Your task to perform on an android device: toggle pop-ups in chrome Image 0: 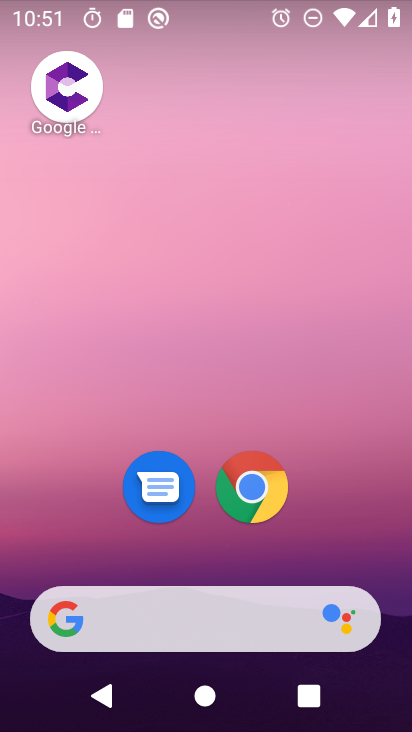
Step 0: click (261, 494)
Your task to perform on an android device: toggle pop-ups in chrome Image 1: 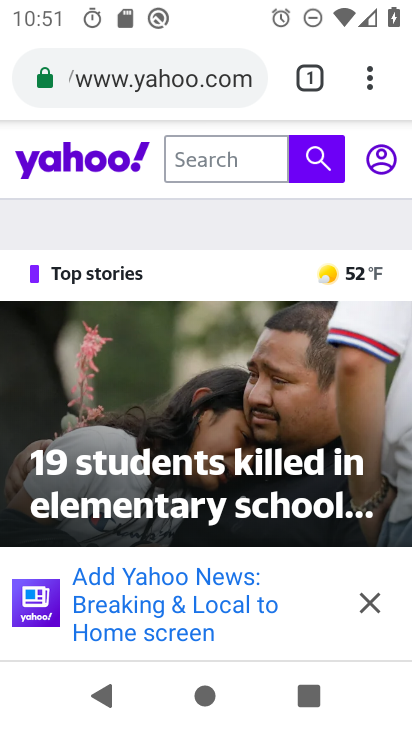
Step 1: click (368, 80)
Your task to perform on an android device: toggle pop-ups in chrome Image 2: 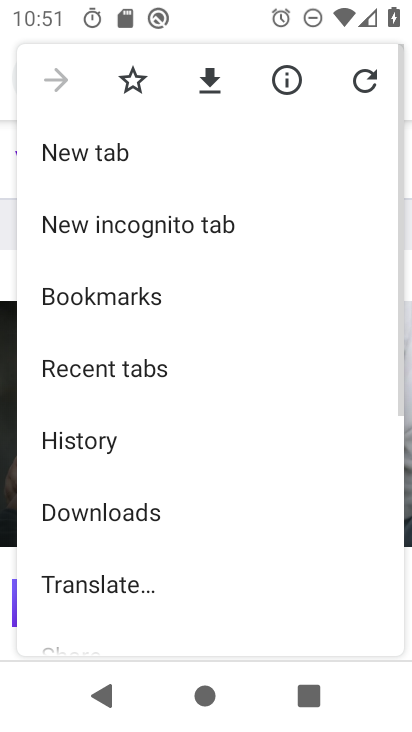
Step 2: drag from (183, 542) to (177, 77)
Your task to perform on an android device: toggle pop-ups in chrome Image 3: 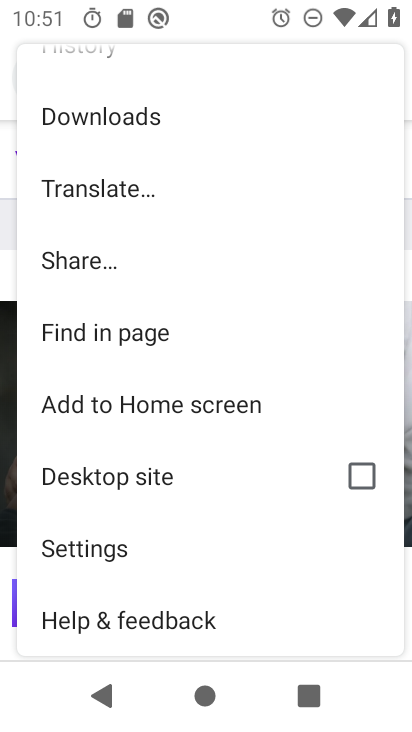
Step 3: click (86, 553)
Your task to perform on an android device: toggle pop-ups in chrome Image 4: 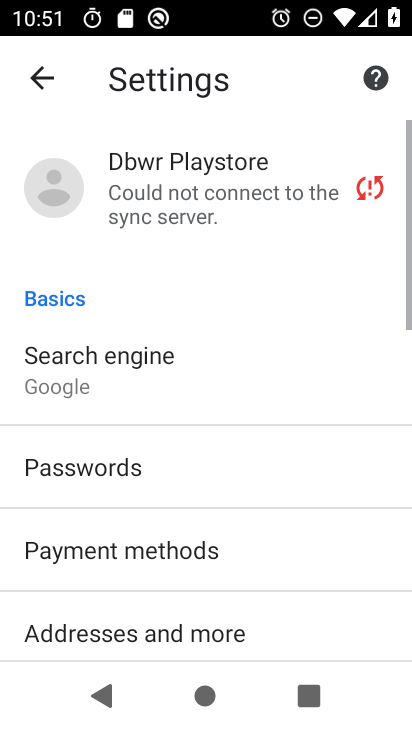
Step 4: drag from (207, 572) to (202, 92)
Your task to perform on an android device: toggle pop-ups in chrome Image 5: 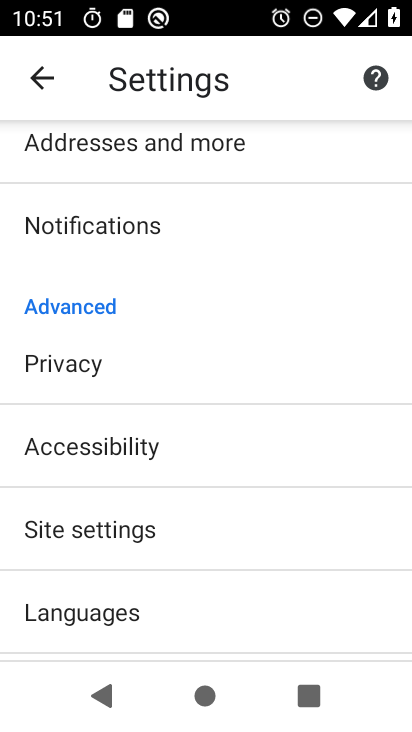
Step 5: drag from (180, 539) to (163, 207)
Your task to perform on an android device: toggle pop-ups in chrome Image 6: 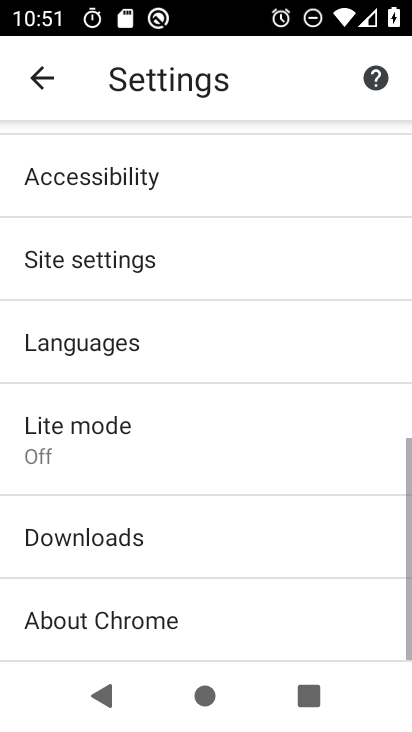
Step 6: click (115, 269)
Your task to perform on an android device: toggle pop-ups in chrome Image 7: 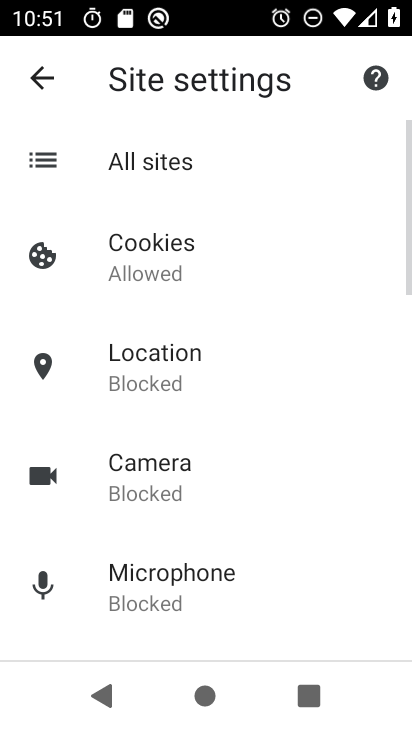
Step 7: drag from (231, 535) to (209, 140)
Your task to perform on an android device: toggle pop-ups in chrome Image 8: 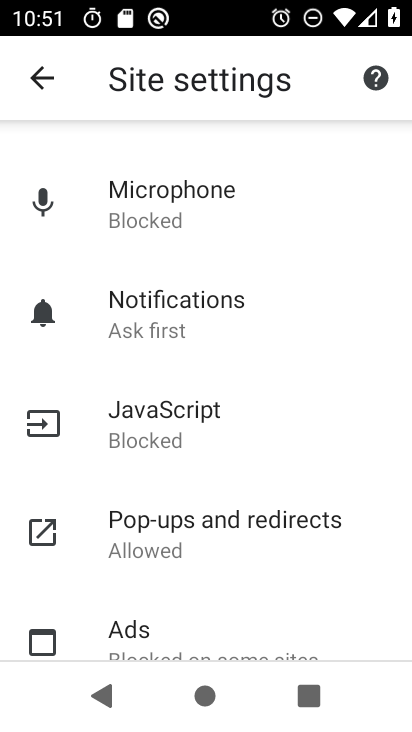
Step 8: click (164, 538)
Your task to perform on an android device: toggle pop-ups in chrome Image 9: 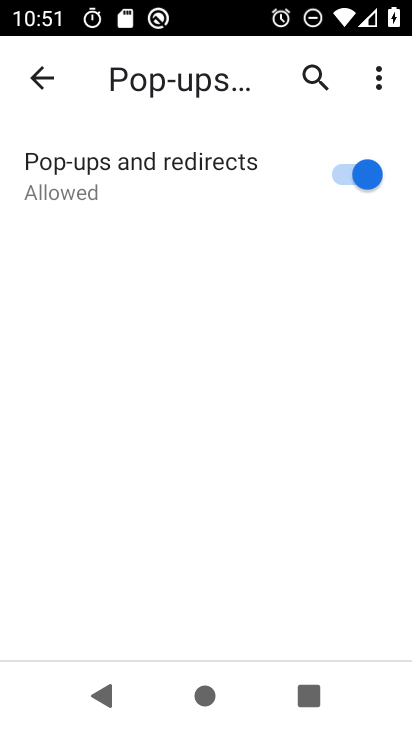
Step 9: click (354, 176)
Your task to perform on an android device: toggle pop-ups in chrome Image 10: 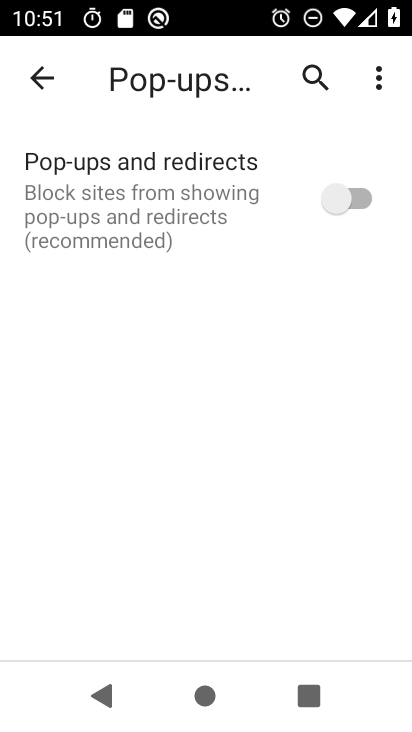
Step 10: task complete